Your task to perform on an android device: Go to battery settings Image 0: 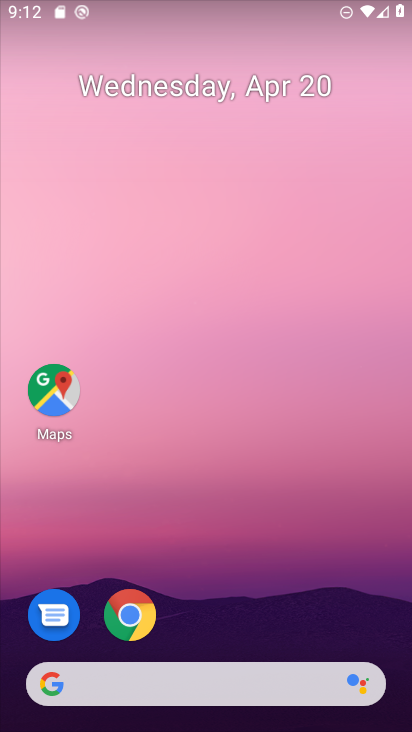
Step 0: drag from (230, 613) to (218, 98)
Your task to perform on an android device: Go to battery settings Image 1: 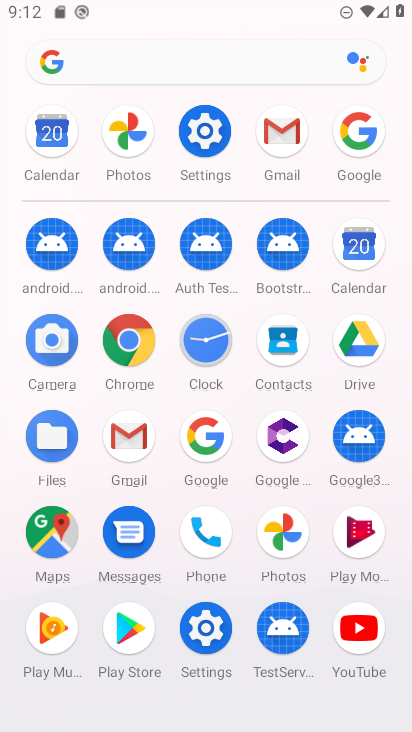
Step 1: click (203, 130)
Your task to perform on an android device: Go to battery settings Image 2: 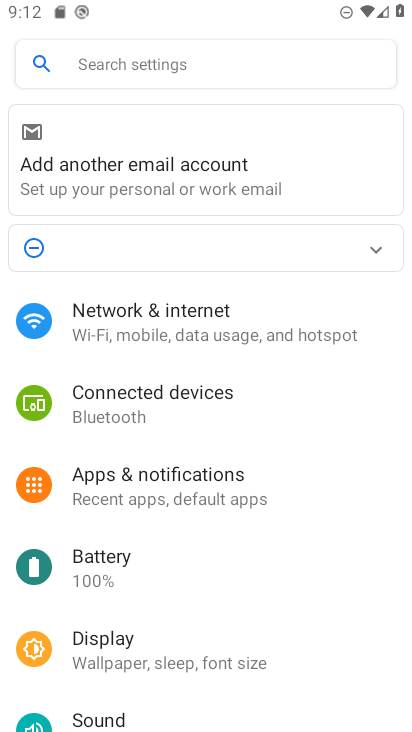
Step 2: drag from (180, 586) to (199, 474)
Your task to perform on an android device: Go to battery settings Image 3: 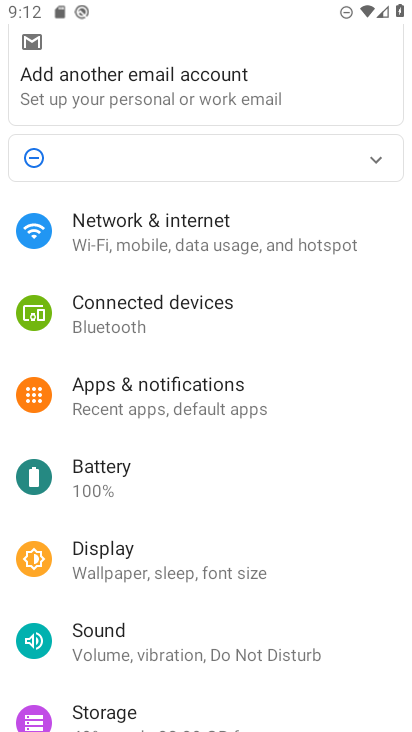
Step 3: click (97, 467)
Your task to perform on an android device: Go to battery settings Image 4: 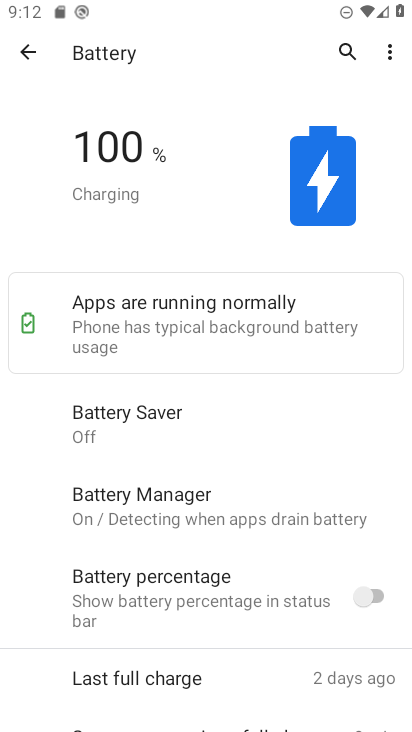
Step 4: task complete